Your task to perform on an android device: turn off improve location accuracy Image 0: 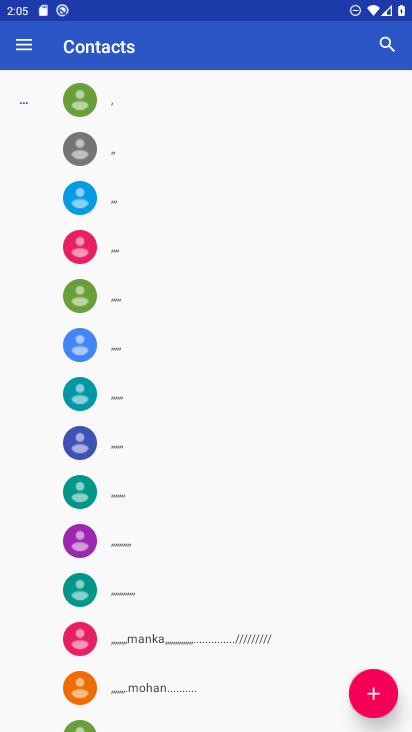
Step 0: press home button
Your task to perform on an android device: turn off improve location accuracy Image 1: 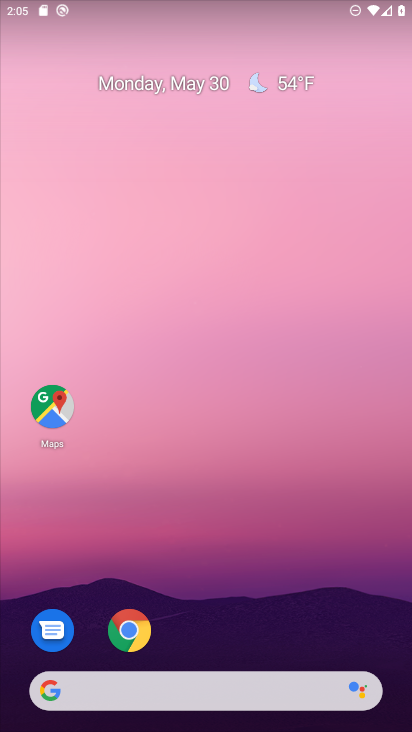
Step 1: drag from (192, 686) to (211, 74)
Your task to perform on an android device: turn off improve location accuracy Image 2: 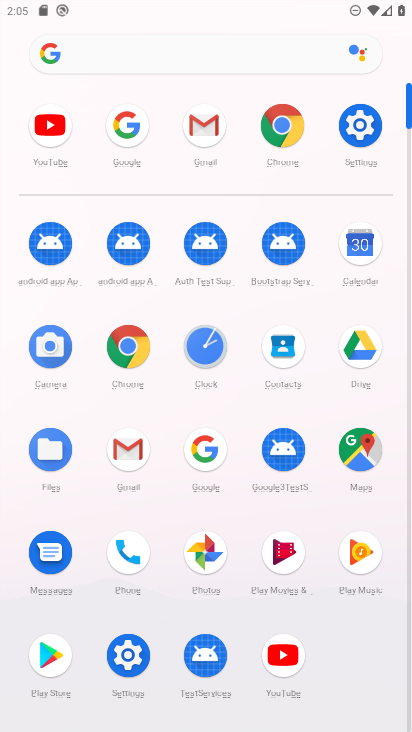
Step 2: click (348, 138)
Your task to perform on an android device: turn off improve location accuracy Image 3: 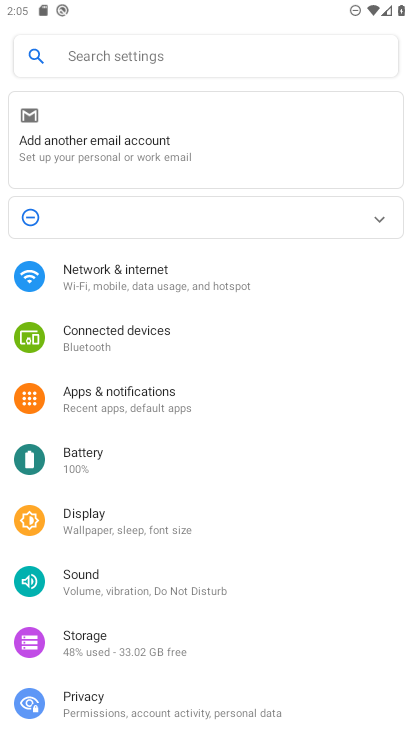
Step 3: drag from (186, 583) to (207, 116)
Your task to perform on an android device: turn off improve location accuracy Image 4: 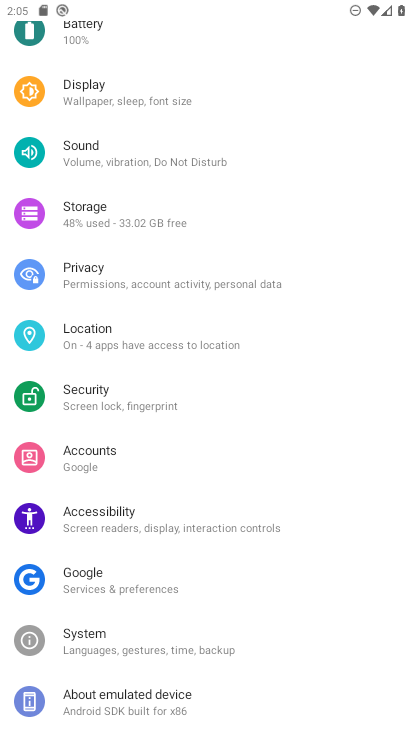
Step 4: click (144, 343)
Your task to perform on an android device: turn off improve location accuracy Image 5: 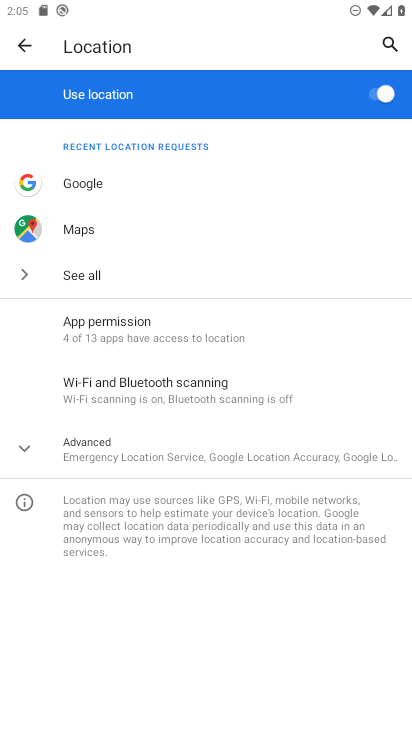
Step 5: click (179, 455)
Your task to perform on an android device: turn off improve location accuracy Image 6: 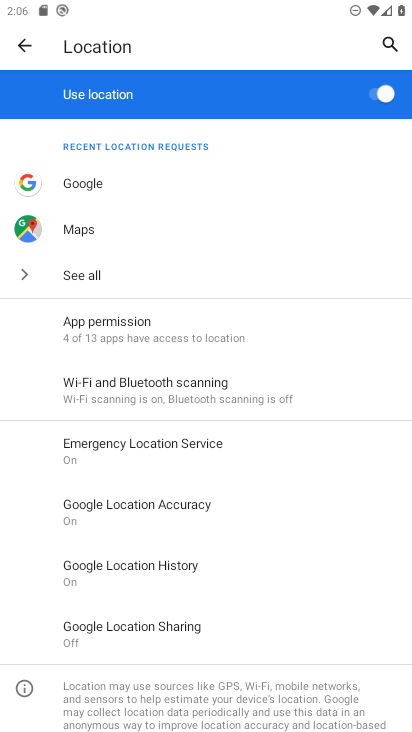
Step 6: click (222, 505)
Your task to perform on an android device: turn off improve location accuracy Image 7: 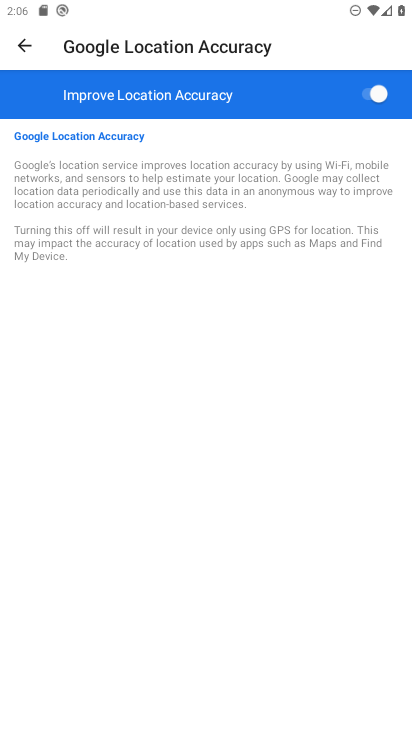
Step 7: click (383, 94)
Your task to perform on an android device: turn off improve location accuracy Image 8: 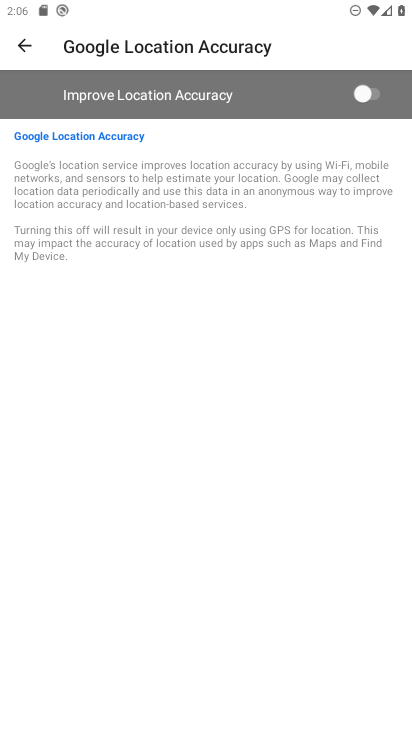
Step 8: task complete